Your task to perform on an android device: When is my next meeting? Image 0: 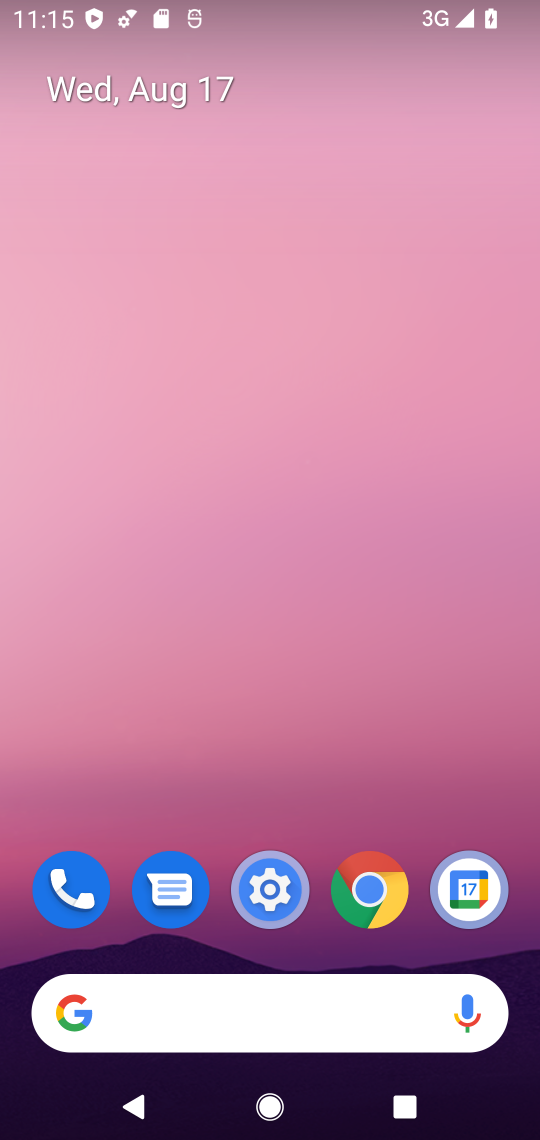
Step 0: drag from (322, 717) to (376, 2)
Your task to perform on an android device: When is my next meeting? Image 1: 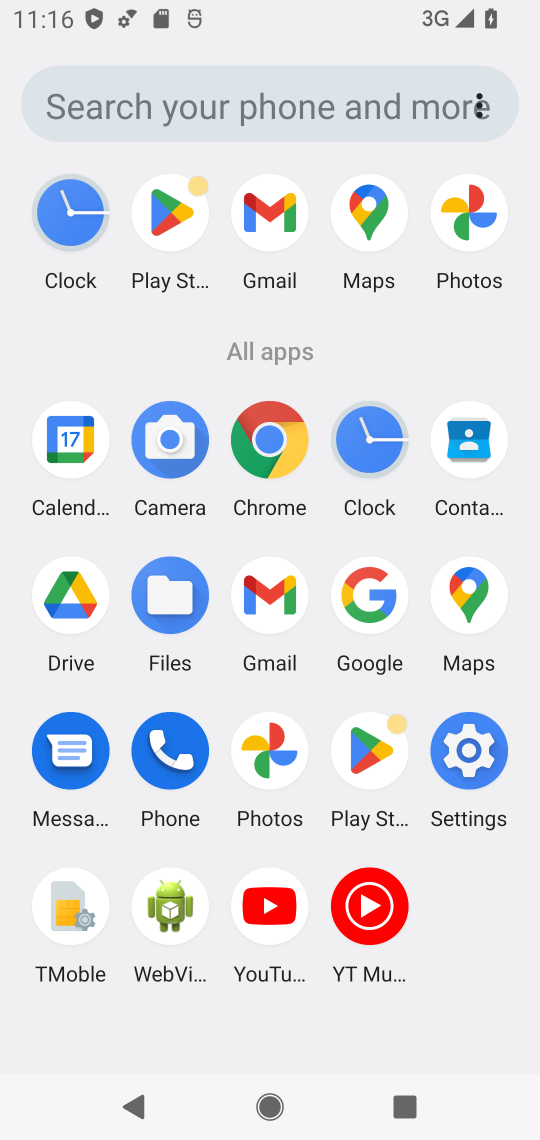
Step 1: click (78, 439)
Your task to perform on an android device: When is my next meeting? Image 2: 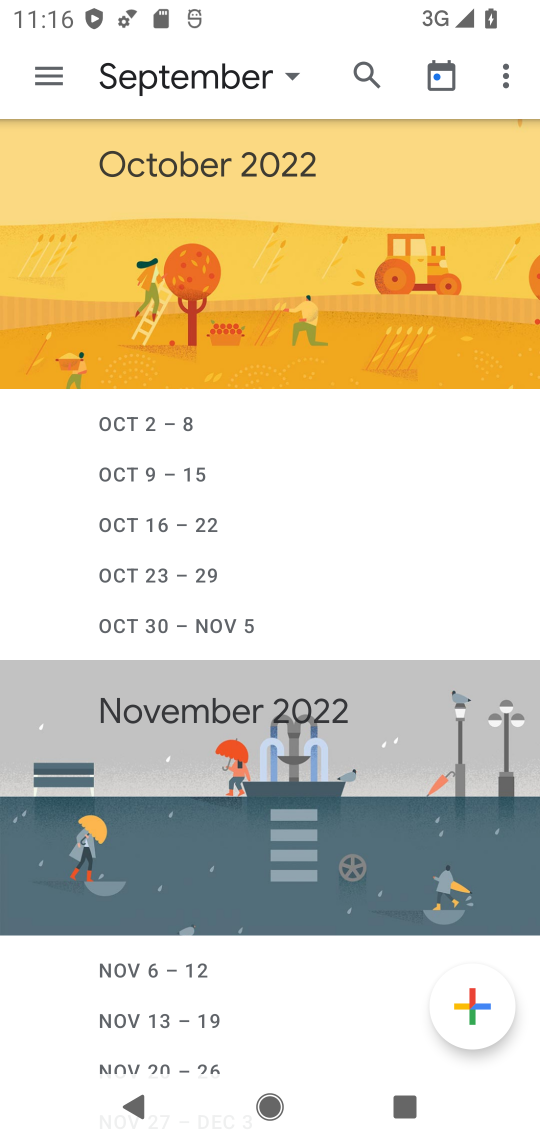
Step 2: task complete